Your task to perform on an android device: Go to internet settings Image 0: 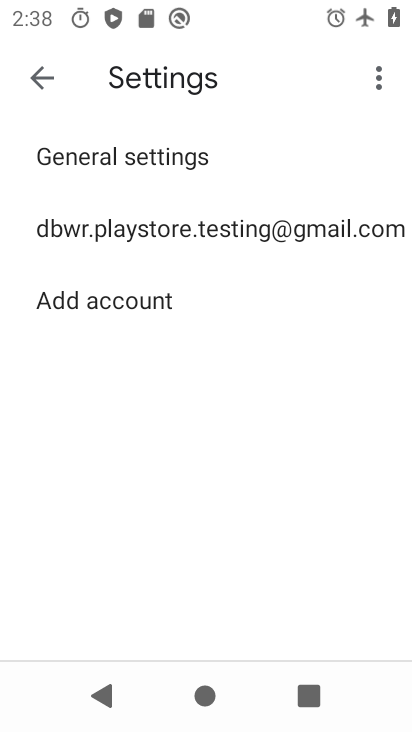
Step 0: press home button
Your task to perform on an android device: Go to internet settings Image 1: 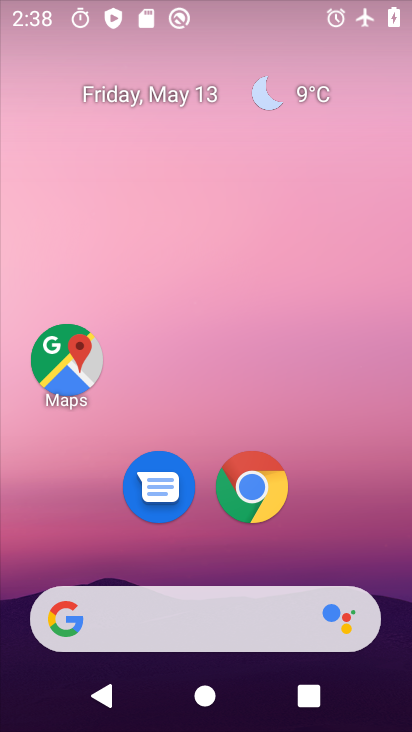
Step 1: drag from (193, 539) to (230, 117)
Your task to perform on an android device: Go to internet settings Image 2: 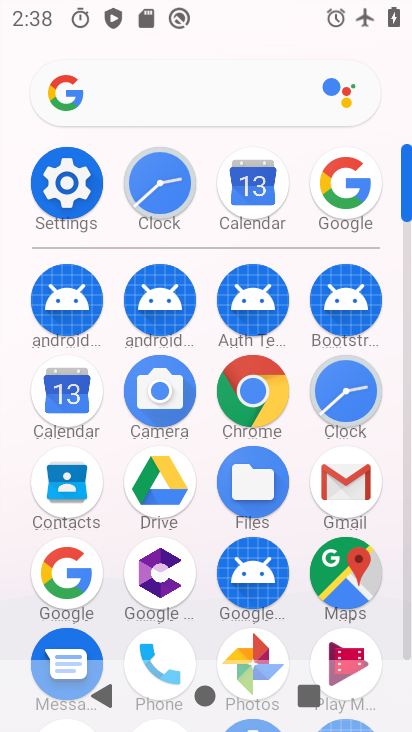
Step 2: click (74, 165)
Your task to perform on an android device: Go to internet settings Image 3: 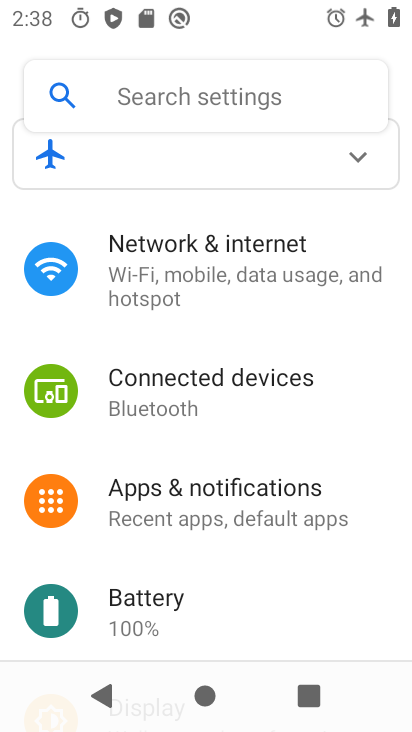
Step 3: click (174, 291)
Your task to perform on an android device: Go to internet settings Image 4: 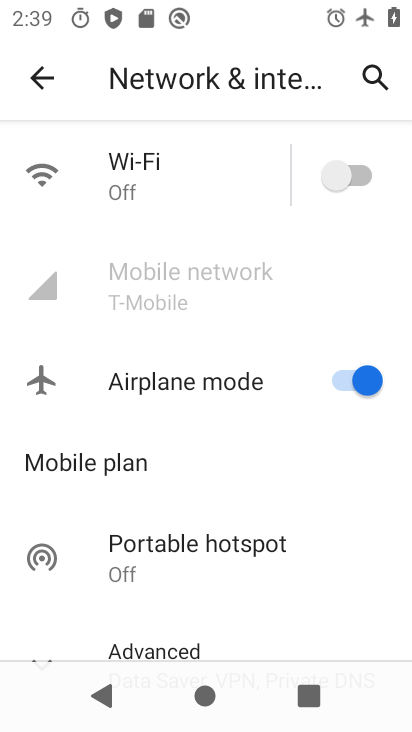
Step 4: click (350, 177)
Your task to perform on an android device: Go to internet settings Image 5: 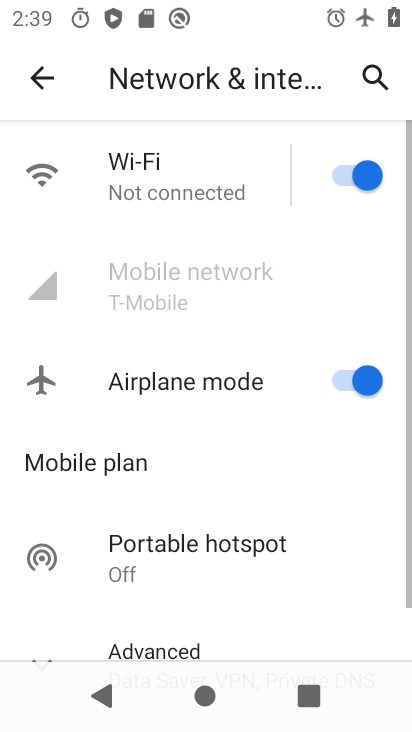
Step 5: click (186, 172)
Your task to perform on an android device: Go to internet settings Image 6: 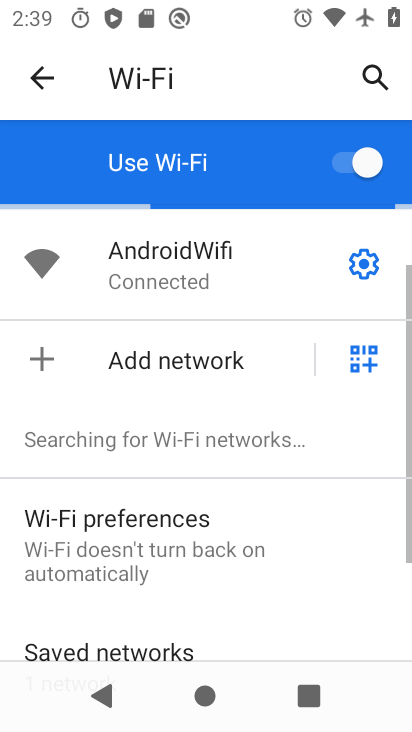
Step 6: click (359, 284)
Your task to perform on an android device: Go to internet settings Image 7: 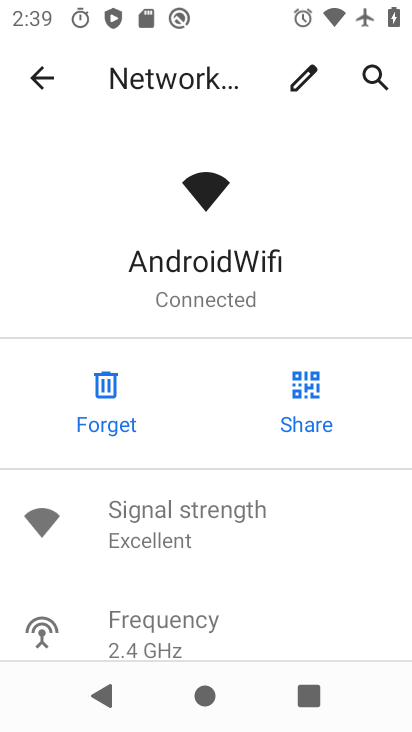
Step 7: task complete